Your task to perform on an android device: Set the phone to "Do not disturb". Image 0: 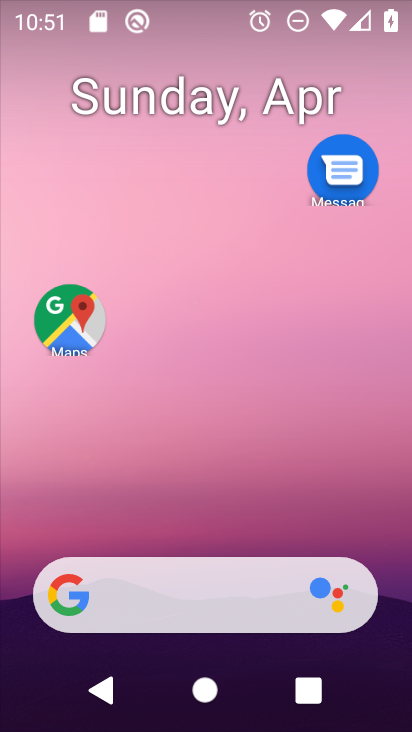
Step 0: drag from (155, 532) to (175, 107)
Your task to perform on an android device: Set the phone to "Do not disturb". Image 1: 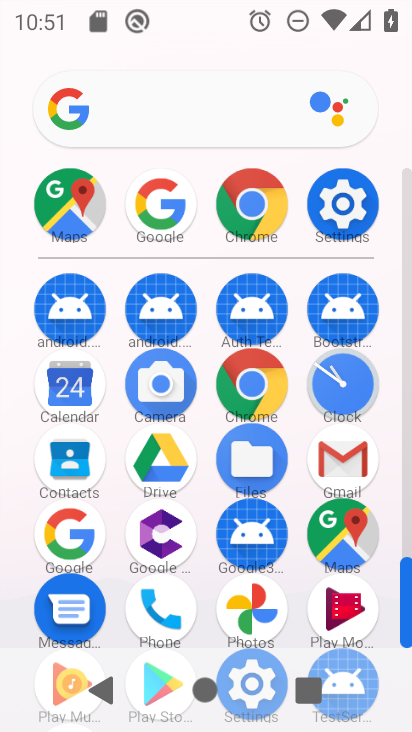
Step 1: drag from (206, 619) to (213, 324)
Your task to perform on an android device: Set the phone to "Do not disturb". Image 2: 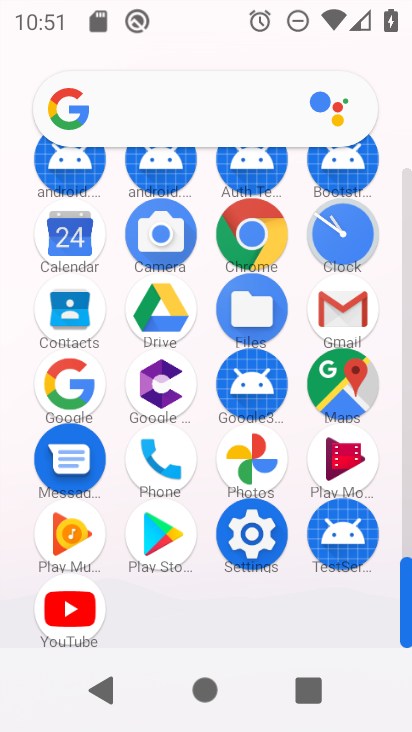
Step 2: click (230, 527)
Your task to perform on an android device: Set the phone to "Do not disturb". Image 3: 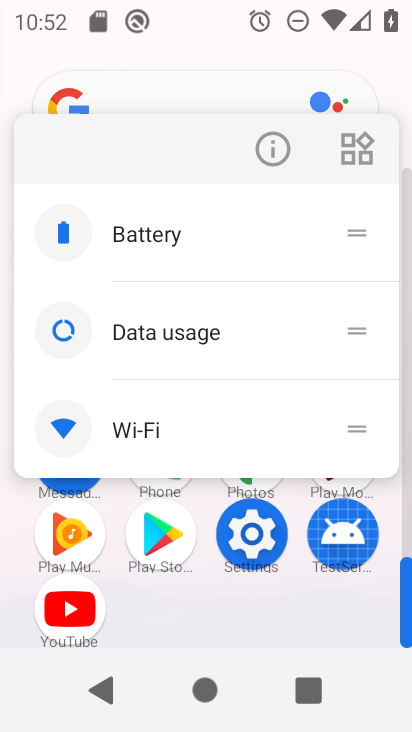
Step 3: click (273, 154)
Your task to perform on an android device: Set the phone to "Do not disturb". Image 4: 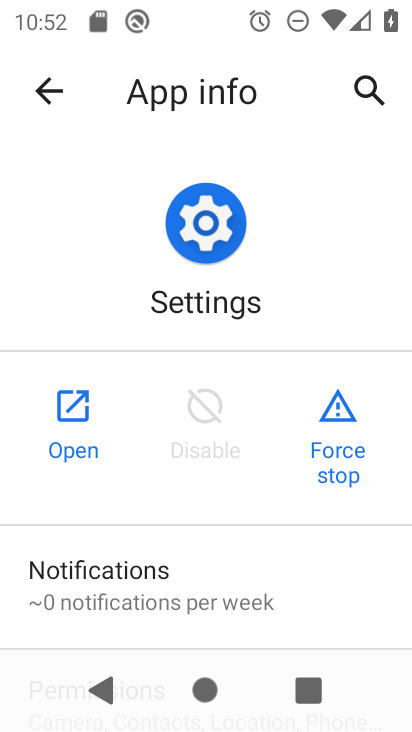
Step 4: click (76, 393)
Your task to perform on an android device: Set the phone to "Do not disturb". Image 5: 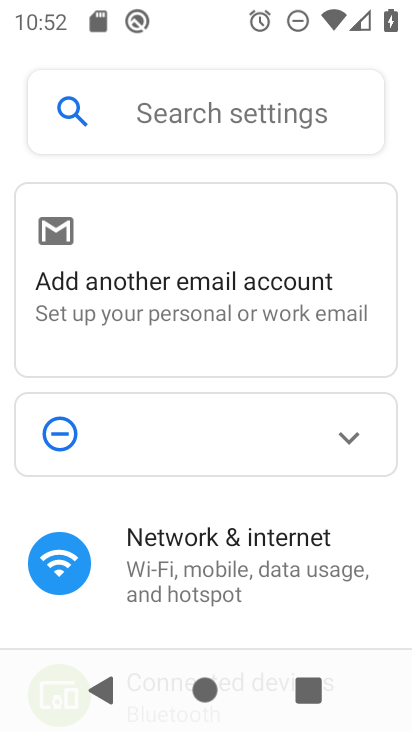
Step 5: drag from (203, 569) to (312, 91)
Your task to perform on an android device: Set the phone to "Do not disturb". Image 6: 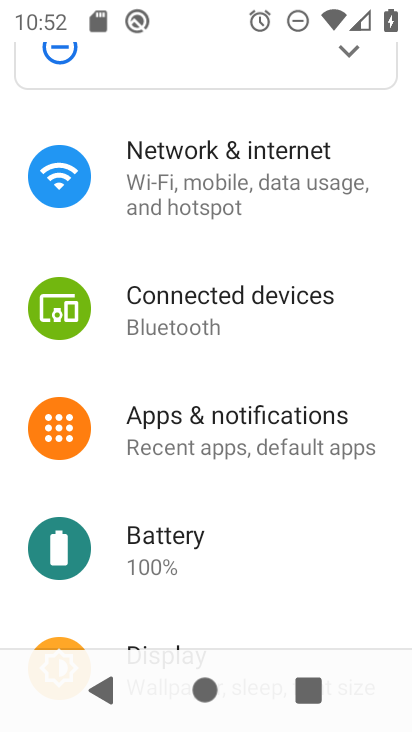
Step 6: click (218, 440)
Your task to perform on an android device: Set the phone to "Do not disturb". Image 7: 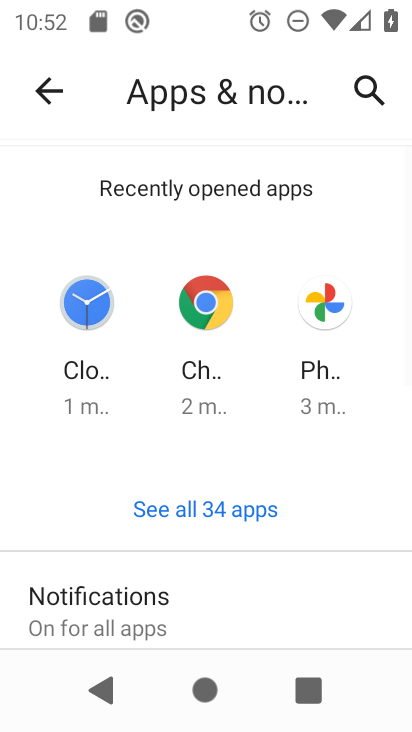
Step 7: drag from (216, 546) to (263, 248)
Your task to perform on an android device: Set the phone to "Do not disturb". Image 8: 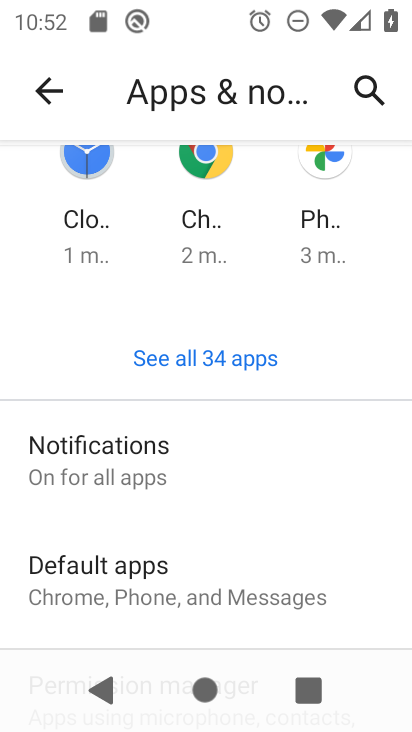
Step 8: click (166, 452)
Your task to perform on an android device: Set the phone to "Do not disturb". Image 9: 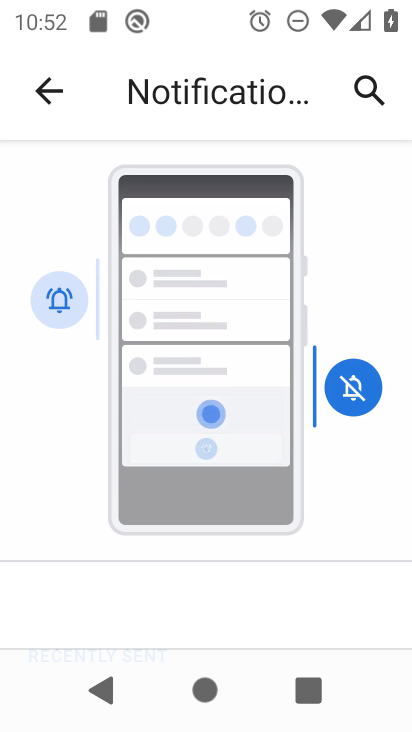
Step 9: drag from (214, 575) to (343, 12)
Your task to perform on an android device: Set the phone to "Do not disturb". Image 10: 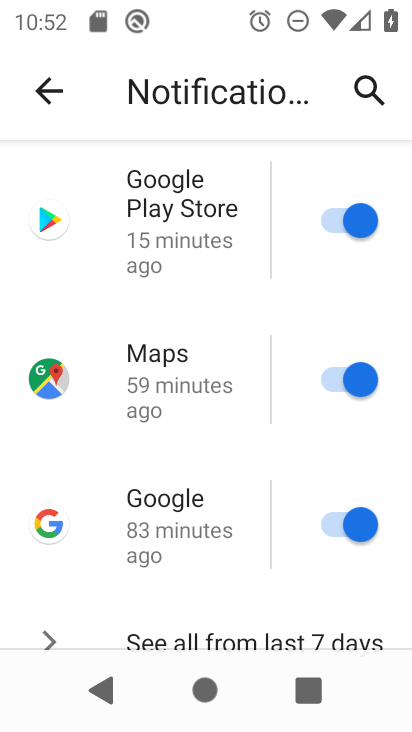
Step 10: drag from (237, 462) to (351, 10)
Your task to perform on an android device: Set the phone to "Do not disturb". Image 11: 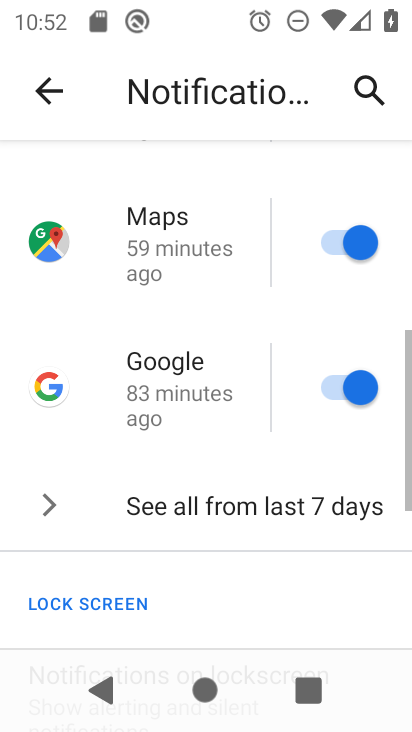
Step 11: drag from (235, 531) to (272, 106)
Your task to perform on an android device: Set the phone to "Do not disturb". Image 12: 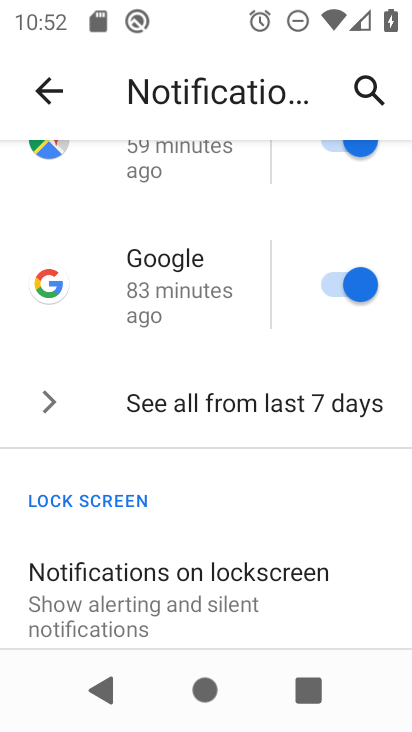
Step 12: drag from (189, 578) to (236, 67)
Your task to perform on an android device: Set the phone to "Do not disturb". Image 13: 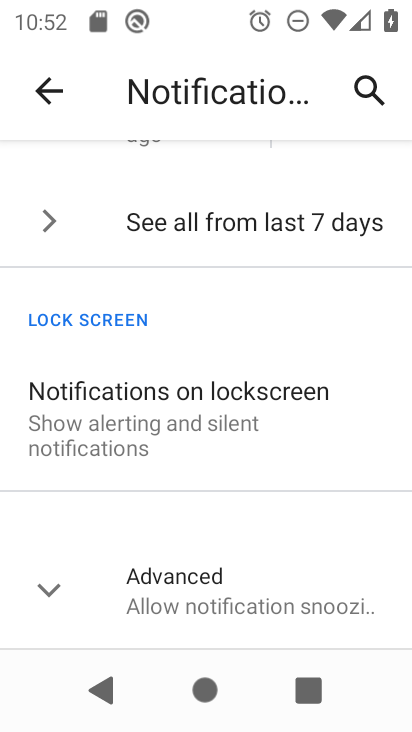
Step 13: click (154, 601)
Your task to perform on an android device: Set the phone to "Do not disturb". Image 14: 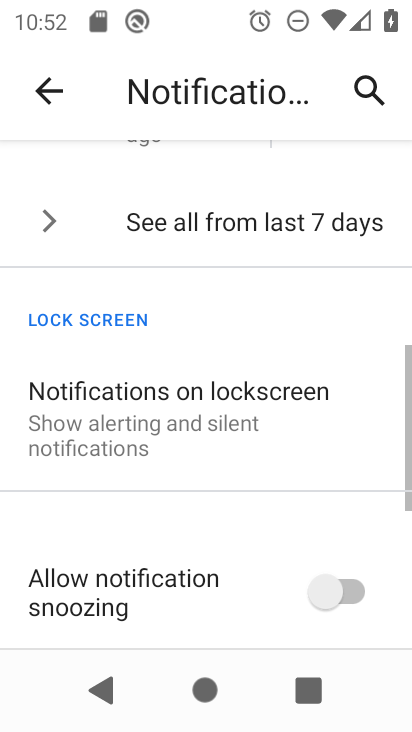
Step 14: drag from (153, 594) to (237, 41)
Your task to perform on an android device: Set the phone to "Do not disturb". Image 15: 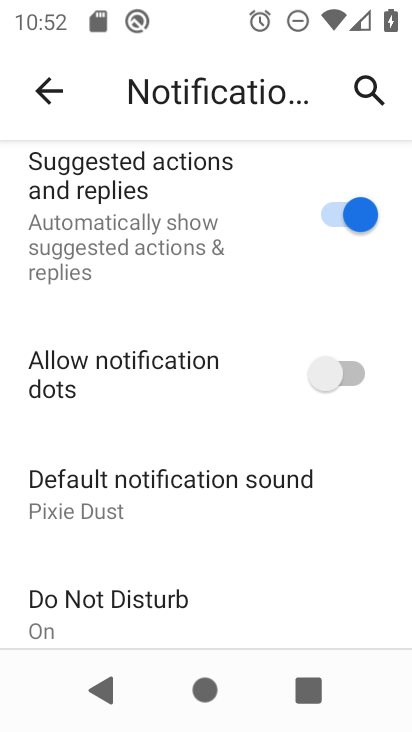
Step 15: click (156, 608)
Your task to perform on an android device: Set the phone to "Do not disturb". Image 16: 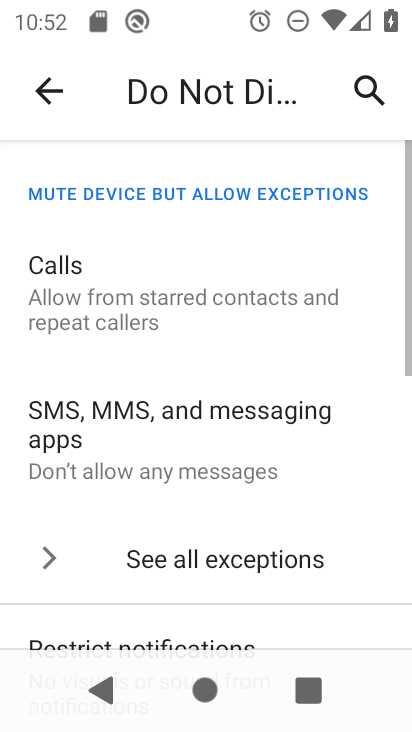
Step 16: drag from (158, 541) to (184, 164)
Your task to perform on an android device: Set the phone to "Do not disturb". Image 17: 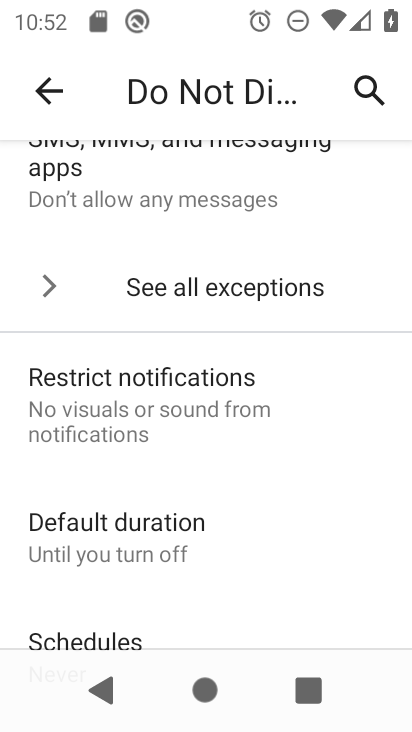
Step 17: drag from (169, 554) to (228, 142)
Your task to perform on an android device: Set the phone to "Do not disturb". Image 18: 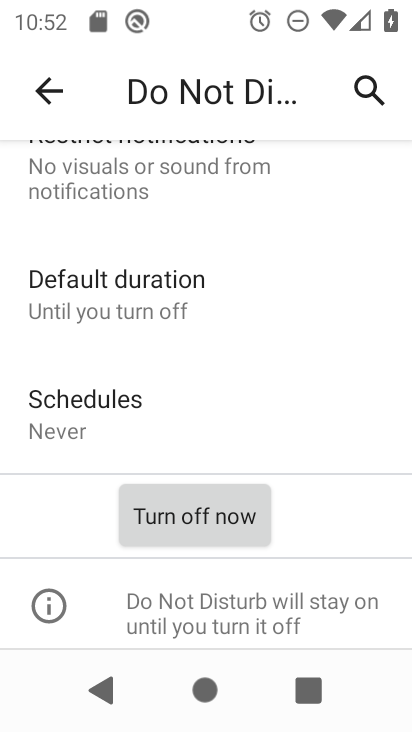
Step 18: click (173, 510)
Your task to perform on an android device: Set the phone to "Do not disturb". Image 19: 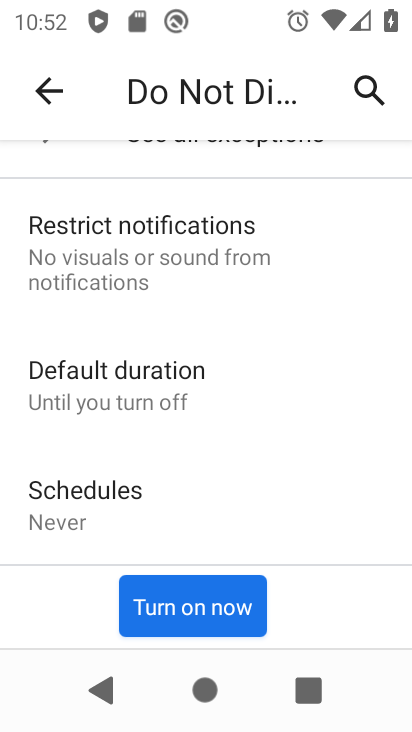
Step 19: click (211, 608)
Your task to perform on an android device: Set the phone to "Do not disturb". Image 20: 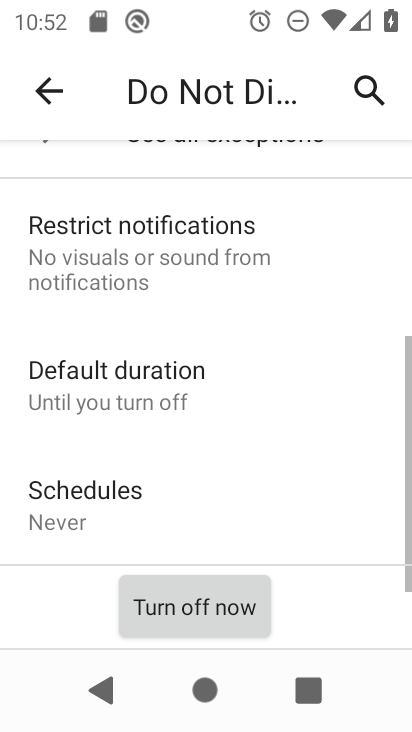
Step 20: task complete